Your task to perform on an android device: Open notification settings Image 0: 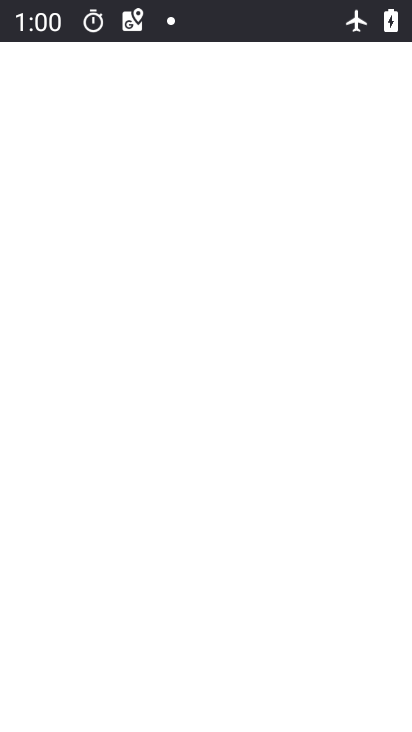
Step 0: drag from (276, 331) to (324, 6)
Your task to perform on an android device: Open notification settings Image 1: 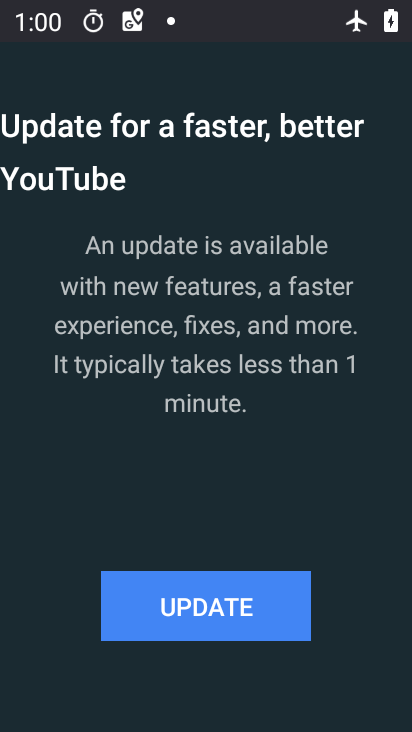
Step 1: press home button
Your task to perform on an android device: Open notification settings Image 2: 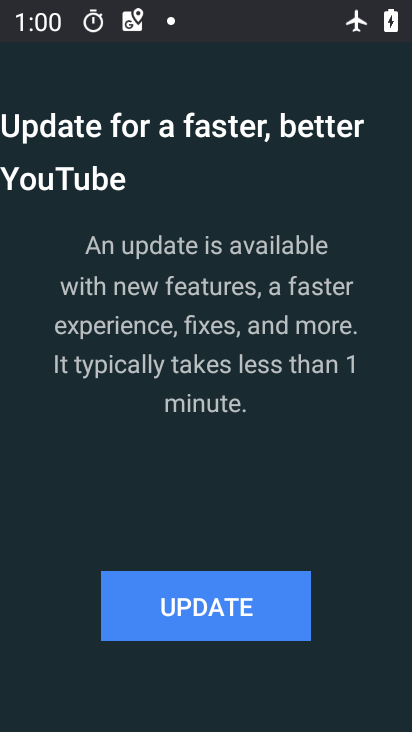
Step 2: drag from (324, 6) to (409, 468)
Your task to perform on an android device: Open notification settings Image 3: 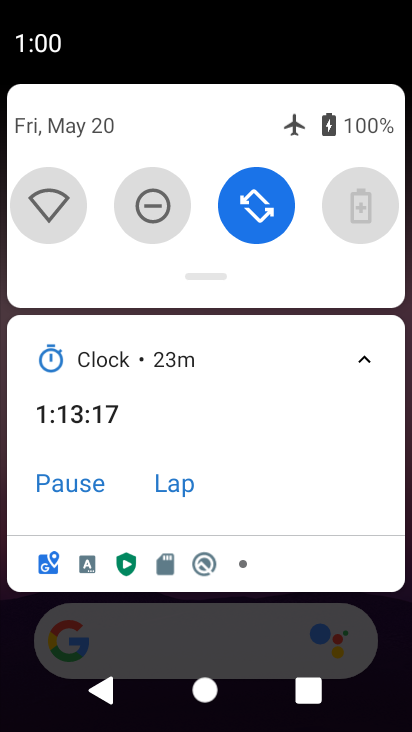
Step 3: drag from (198, 596) to (276, 210)
Your task to perform on an android device: Open notification settings Image 4: 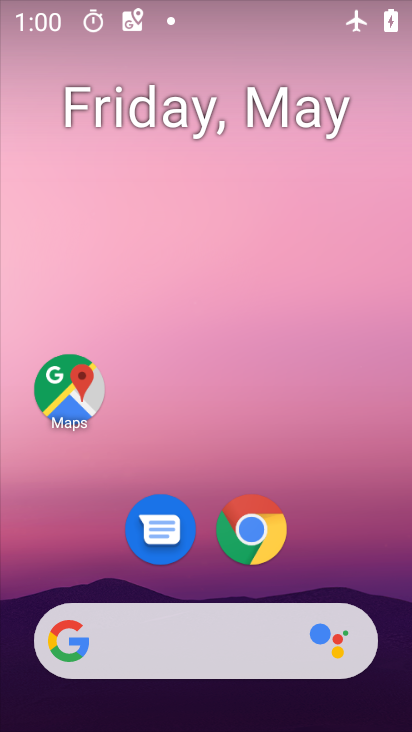
Step 4: drag from (220, 509) to (269, 57)
Your task to perform on an android device: Open notification settings Image 5: 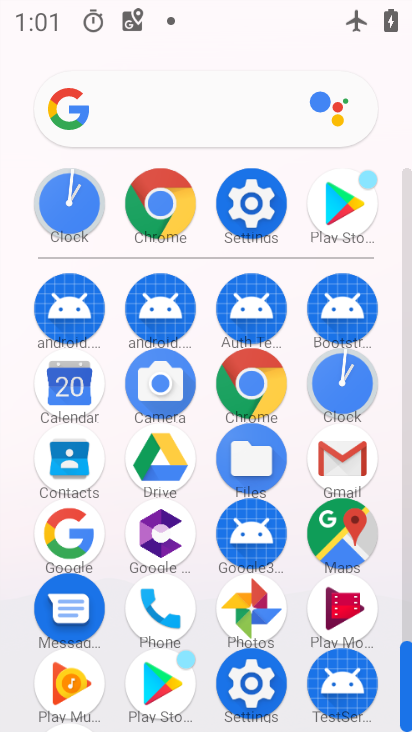
Step 5: click (256, 222)
Your task to perform on an android device: Open notification settings Image 6: 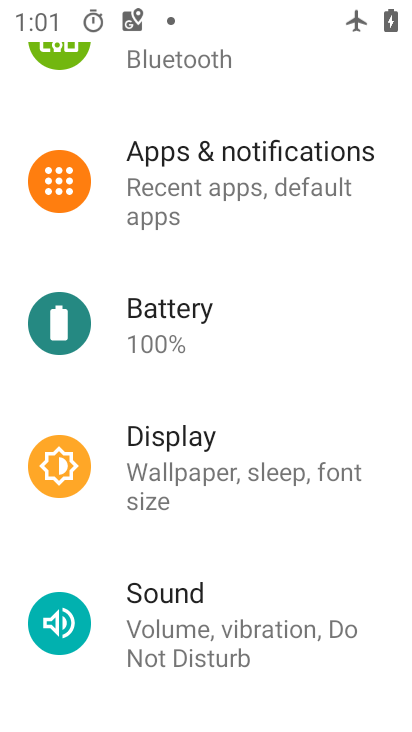
Step 6: click (243, 196)
Your task to perform on an android device: Open notification settings Image 7: 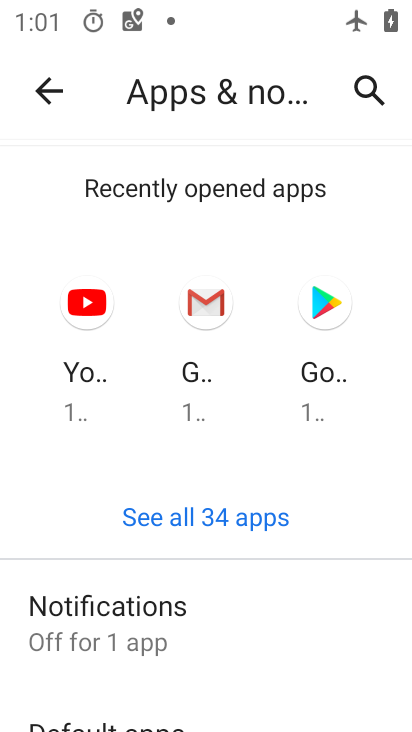
Step 7: click (190, 617)
Your task to perform on an android device: Open notification settings Image 8: 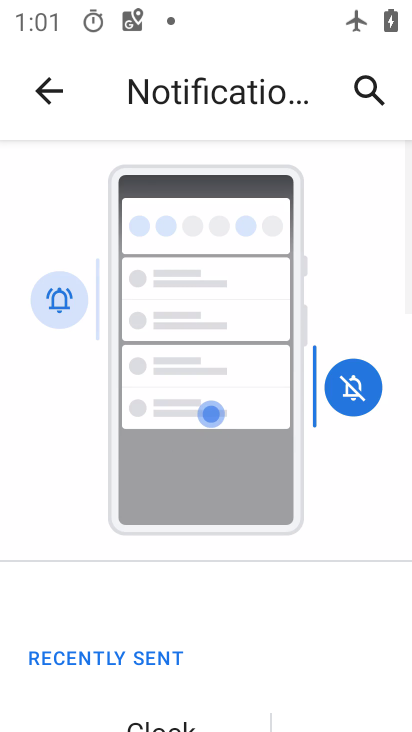
Step 8: task complete